Your task to perform on an android device: open app "Gmail" Image 0: 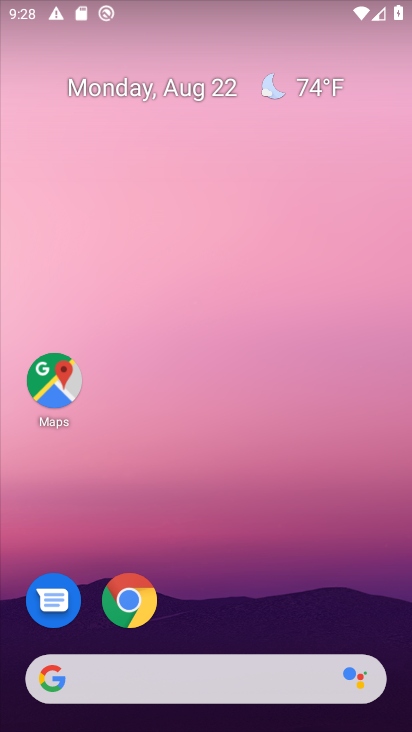
Step 0: drag from (189, 590) to (189, 185)
Your task to perform on an android device: open app "Gmail" Image 1: 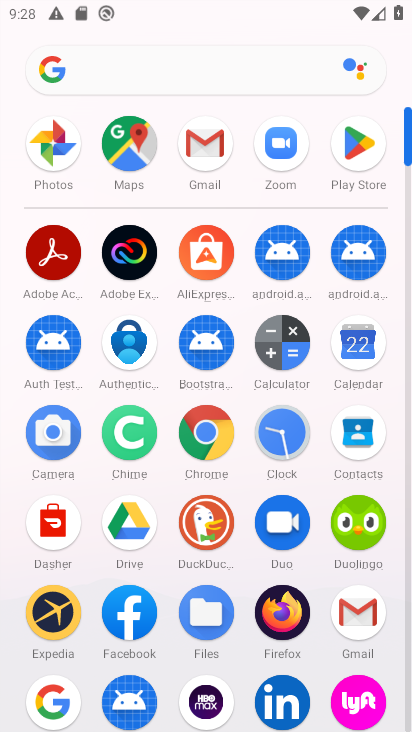
Step 1: click (362, 134)
Your task to perform on an android device: open app "Gmail" Image 2: 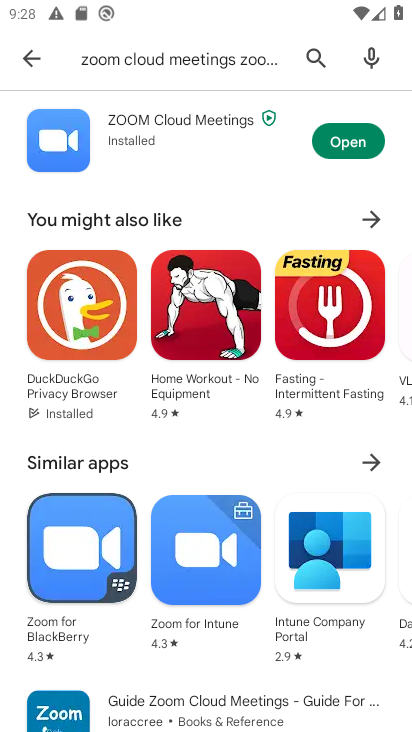
Step 2: click (315, 62)
Your task to perform on an android device: open app "Gmail" Image 3: 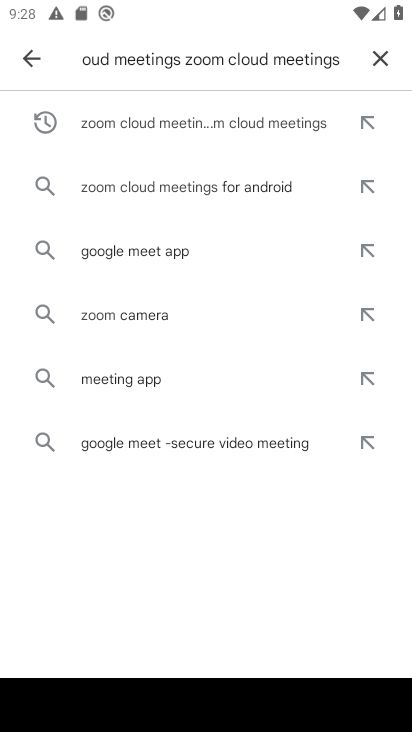
Step 3: click (372, 53)
Your task to perform on an android device: open app "Gmail" Image 4: 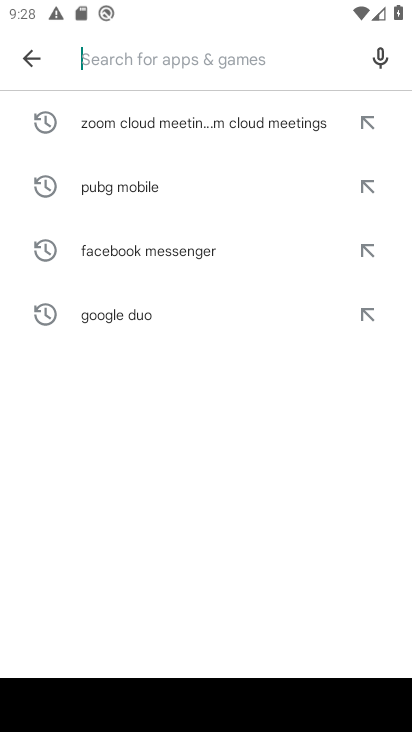
Step 4: type "Gmail"
Your task to perform on an android device: open app "Gmail" Image 5: 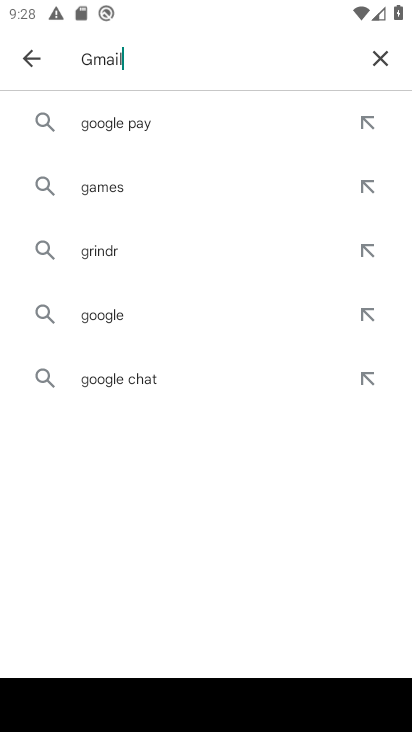
Step 5: type ""
Your task to perform on an android device: open app "Gmail" Image 6: 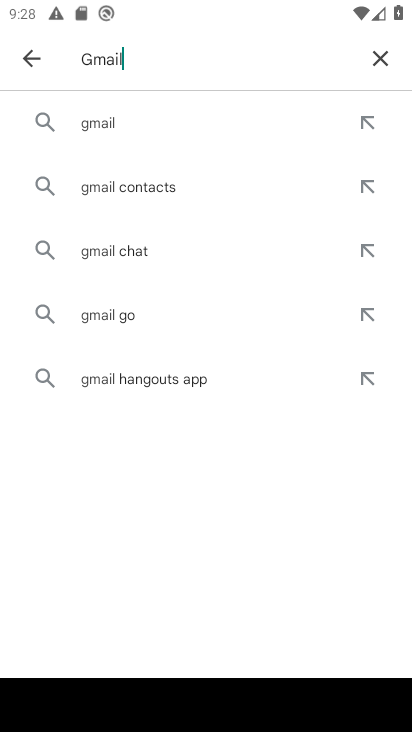
Step 6: click (101, 121)
Your task to perform on an android device: open app "Gmail" Image 7: 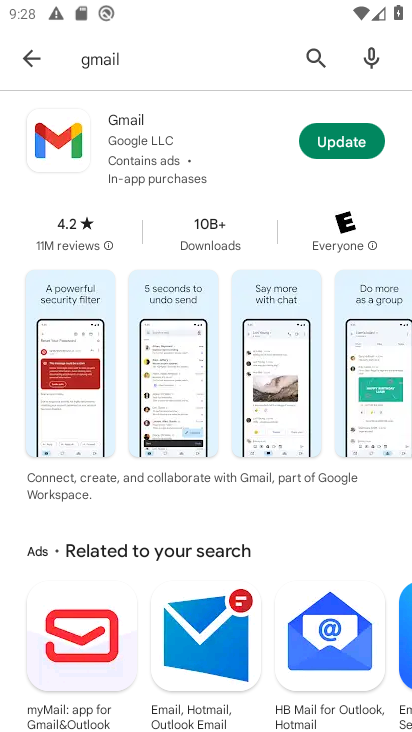
Step 7: click (191, 136)
Your task to perform on an android device: open app "Gmail" Image 8: 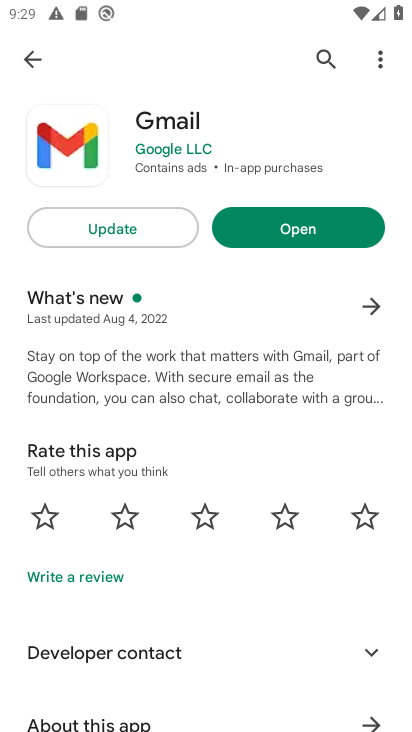
Step 8: click (320, 213)
Your task to perform on an android device: open app "Gmail" Image 9: 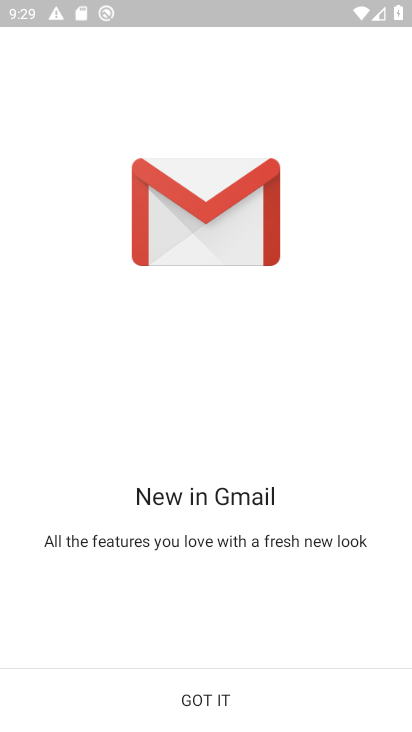
Step 9: task complete